Your task to perform on an android device: turn off smart reply in the gmail app Image 0: 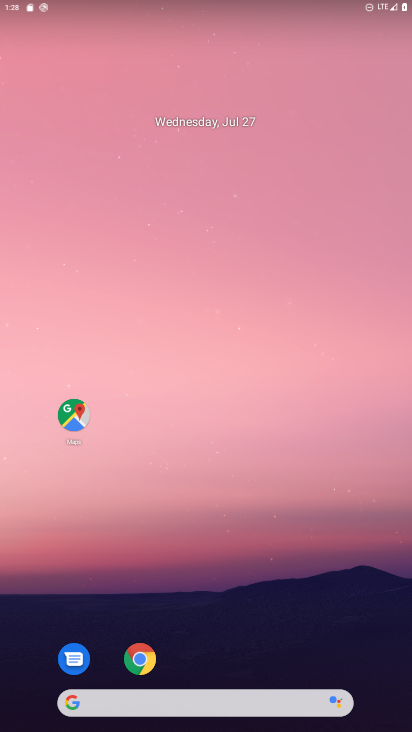
Step 0: drag from (273, 651) to (275, 534)
Your task to perform on an android device: turn off smart reply in the gmail app Image 1: 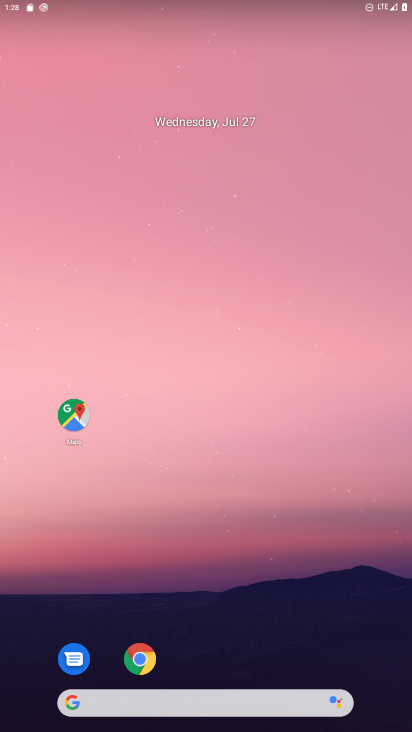
Step 1: drag from (223, 670) to (288, 121)
Your task to perform on an android device: turn off smart reply in the gmail app Image 2: 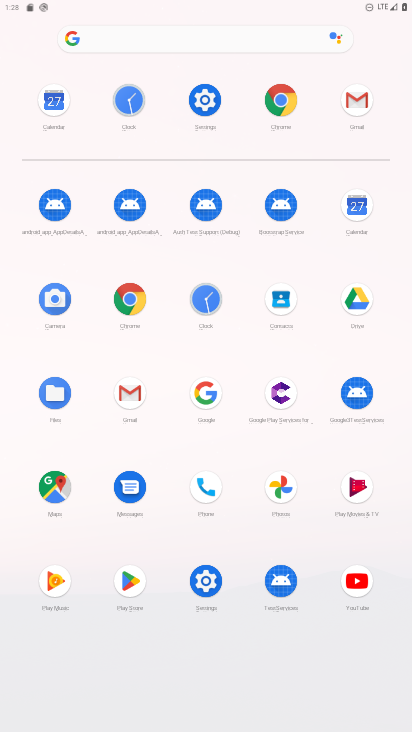
Step 2: click (351, 108)
Your task to perform on an android device: turn off smart reply in the gmail app Image 3: 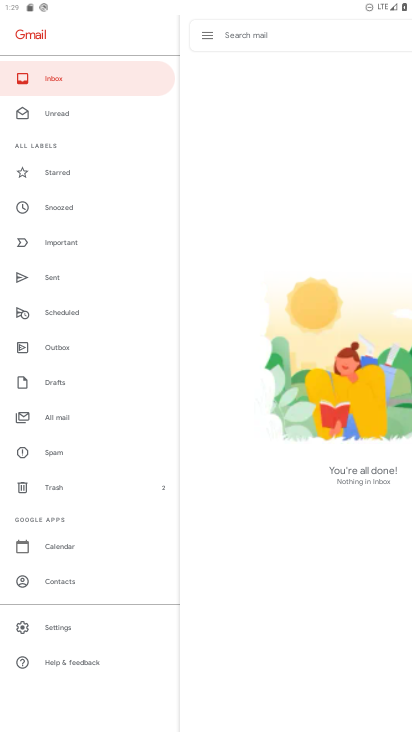
Step 3: click (57, 637)
Your task to perform on an android device: turn off smart reply in the gmail app Image 4: 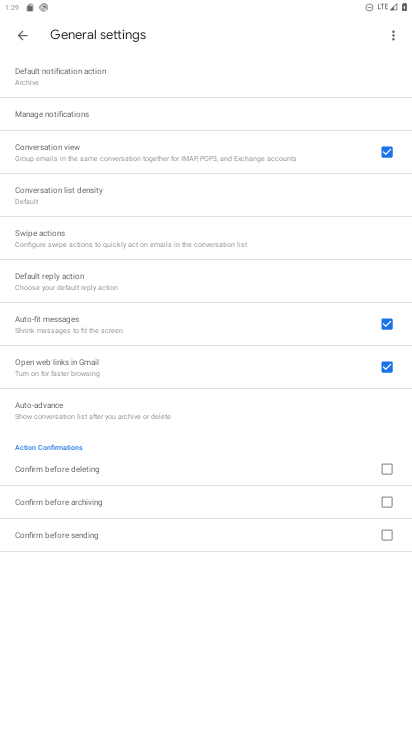
Step 4: click (50, 116)
Your task to perform on an android device: turn off smart reply in the gmail app Image 5: 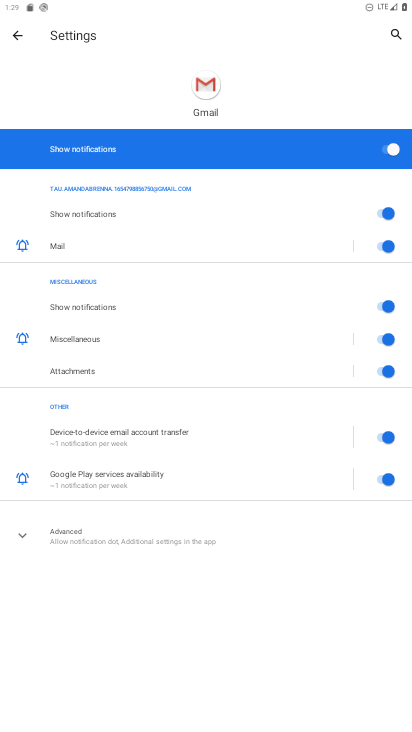
Step 5: click (67, 531)
Your task to perform on an android device: turn off smart reply in the gmail app Image 6: 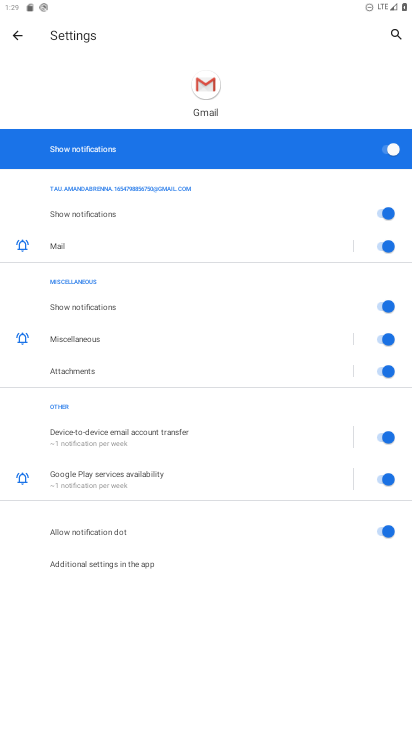
Step 6: click (15, 31)
Your task to perform on an android device: turn off smart reply in the gmail app Image 7: 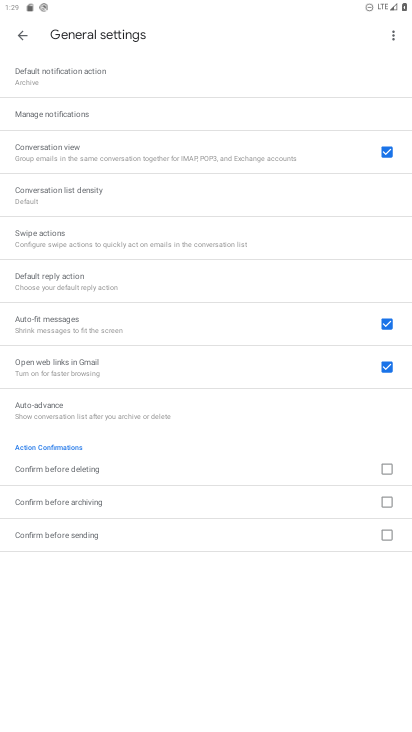
Step 7: click (46, 86)
Your task to perform on an android device: turn off smart reply in the gmail app Image 8: 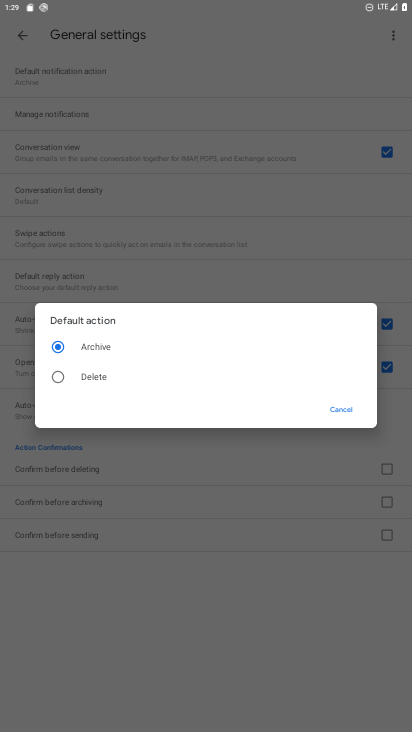
Step 8: click (31, 41)
Your task to perform on an android device: turn off smart reply in the gmail app Image 9: 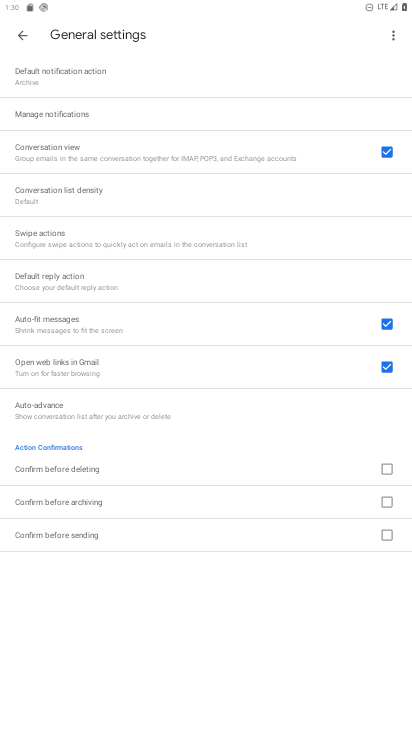
Step 9: click (394, 31)
Your task to perform on an android device: turn off smart reply in the gmail app Image 10: 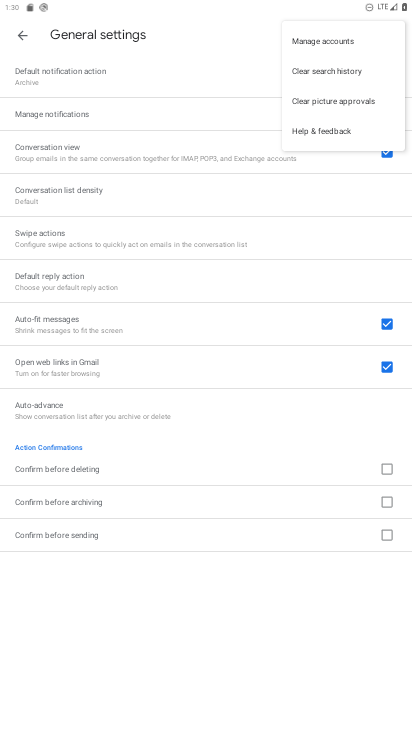
Step 10: click (19, 30)
Your task to perform on an android device: turn off smart reply in the gmail app Image 11: 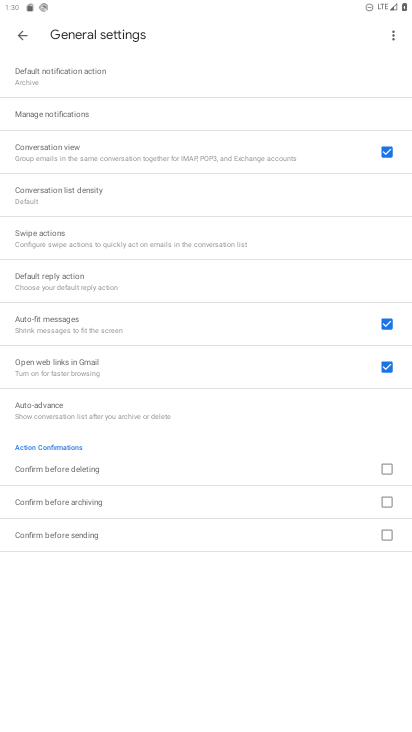
Step 11: click (22, 39)
Your task to perform on an android device: turn off smart reply in the gmail app Image 12: 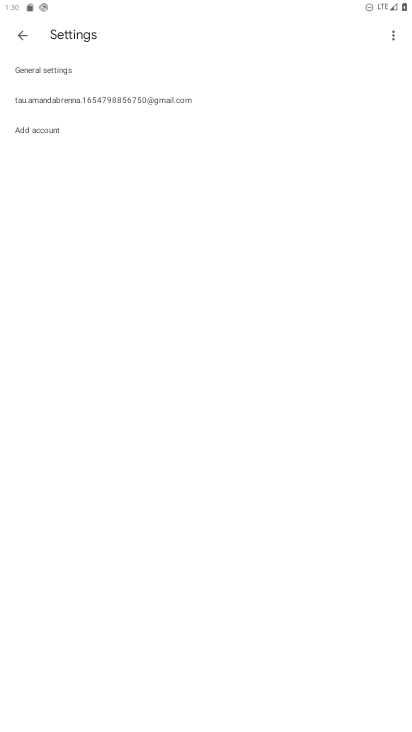
Step 12: click (26, 34)
Your task to perform on an android device: turn off smart reply in the gmail app Image 13: 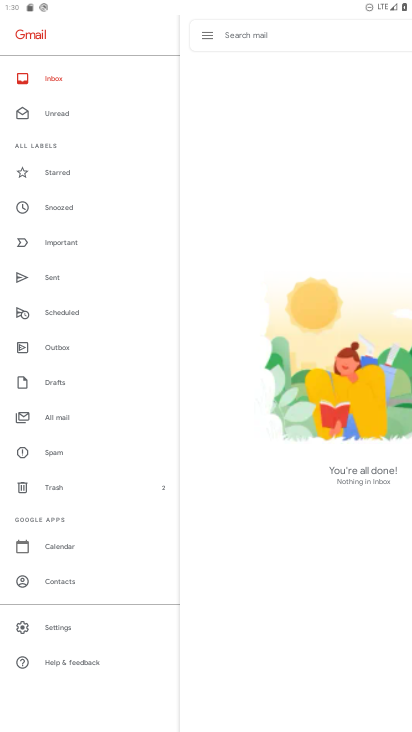
Step 13: task complete